Your task to perform on an android device: move a message to another label in the gmail app Image 0: 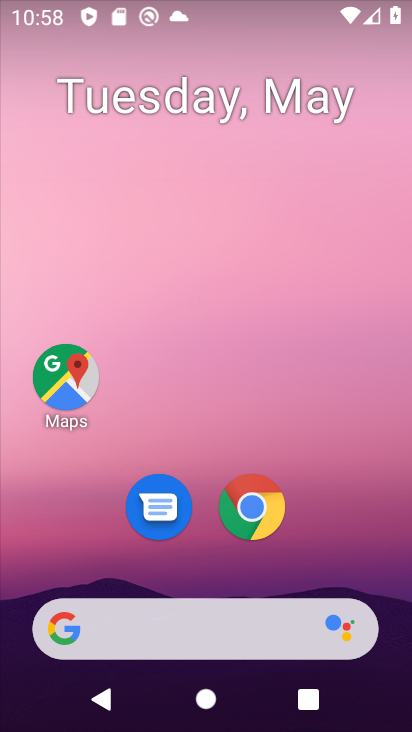
Step 0: drag from (273, 701) to (201, 79)
Your task to perform on an android device: move a message to another label in the gmail app Image 1: 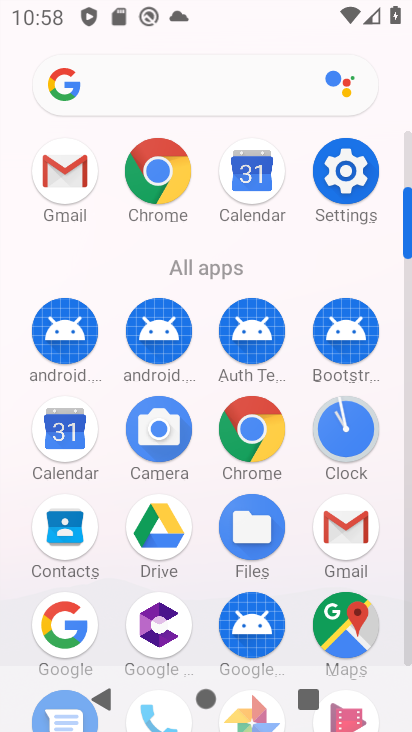
Step 1: click (333, 527)
Your task to perform on an android device: move a message to another label in the gmail app Image 2: 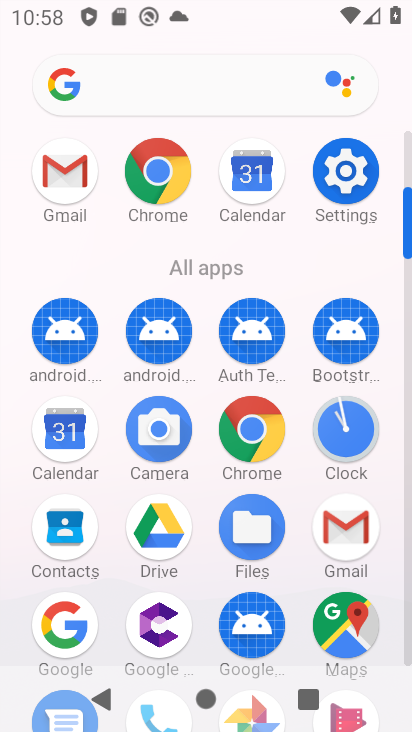
Step 2: click (342, 532)
Your task to perform on an android device: move a message to another label in the gmail app Image 3: 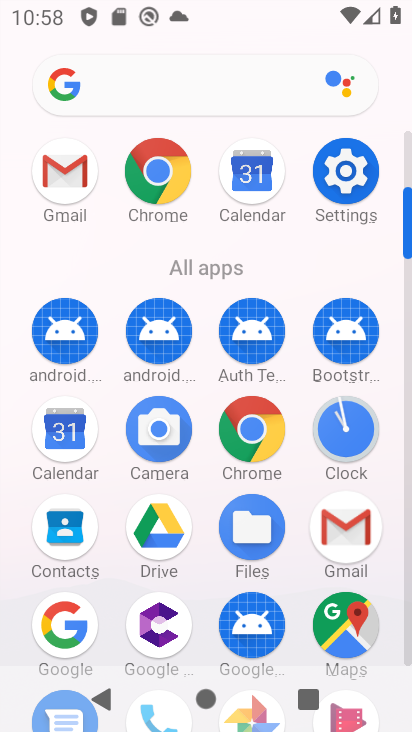
Step 3: click (342, 532)
Your task to perform on an android device: move a message to another label in the gmail app Image 4: 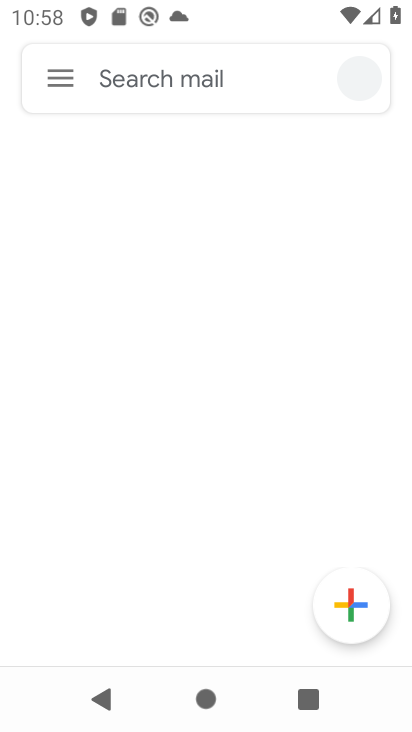
Step 4: click (350, 537)
Your task to perform on an android device: move a message to another label in the gmail app Image 5: 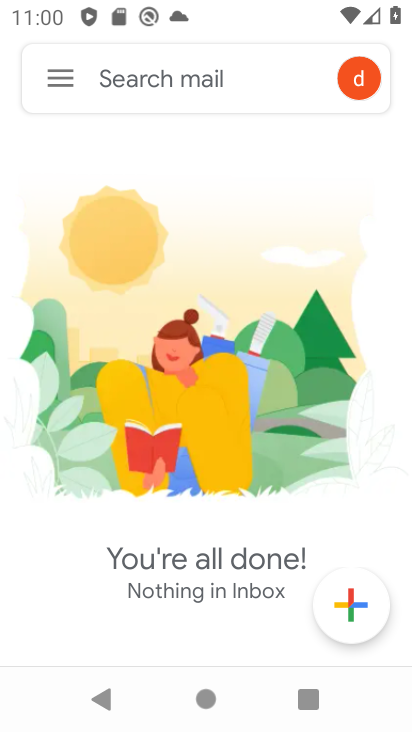
Step 5: press back button
Your task to perform on an android device: move a message to another label in the gmail app Image 6: 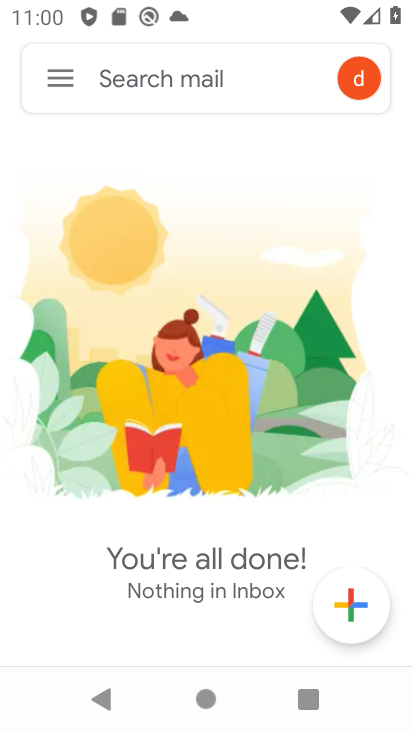
Step 6: press back button
Your task to perform on an android device: move a message to another label in the gmail app Image 7: 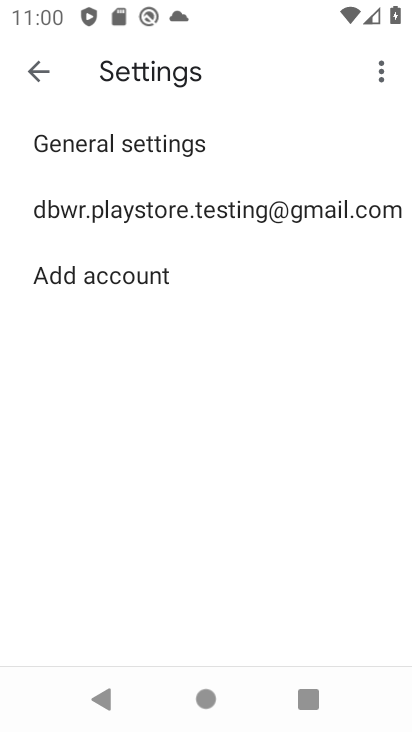
Step 7: press back button
Your task to perform on an android device: move a message to another label in the gmail app Image 8: 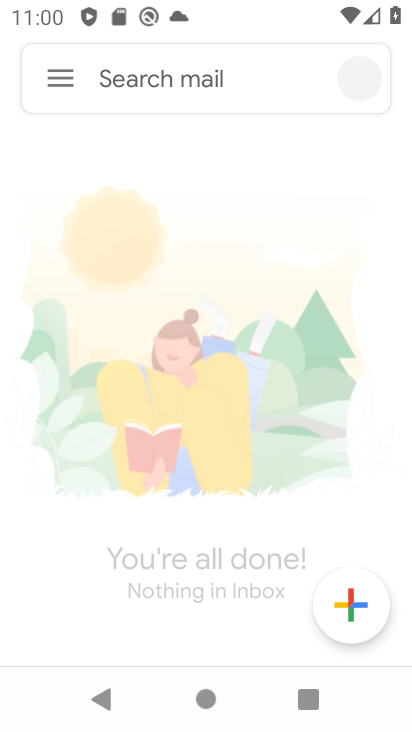
Step 8: press back button
Your task to perform on an android device: move a message to another label in the gmail app Image 9: 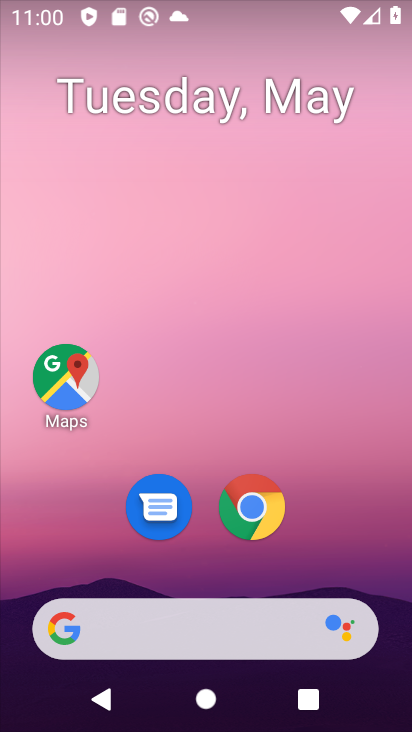
Step 9: drag from (253, 685) to (130, 84)
Your task to perform on an android device: move a message to another label in the gmail app Image 10: 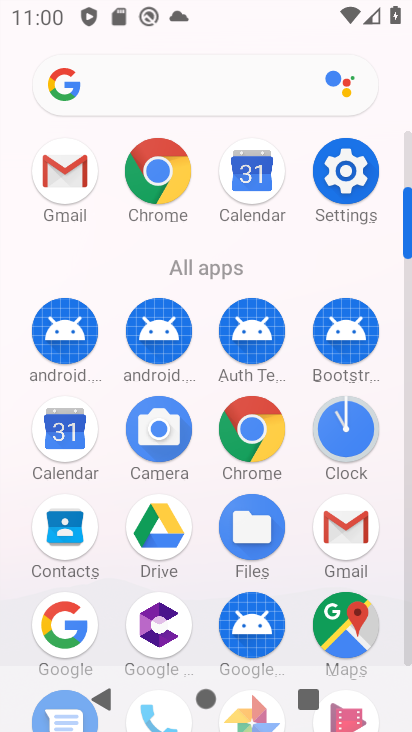
Step 10: click (343, 522)
Your task to perform on an android device: move a message to another label in the gmail app Image 11: 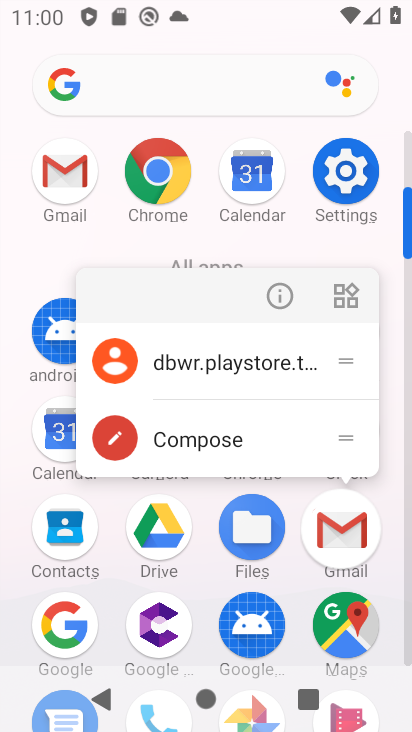
Step 11: click (338, 528)
Your task to perform on an android device: move a message to another label in the gmail app Image 12: 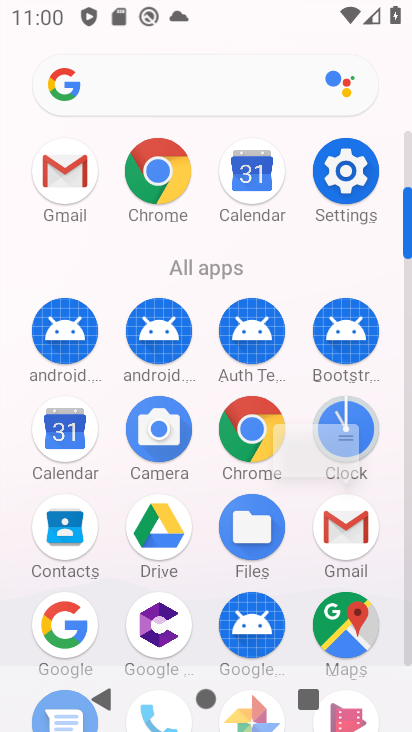
Step 12: drag from (341, 528) to (362, 567)
Your task to perform on an android device: move a message to another label in the gmail app Image 13: 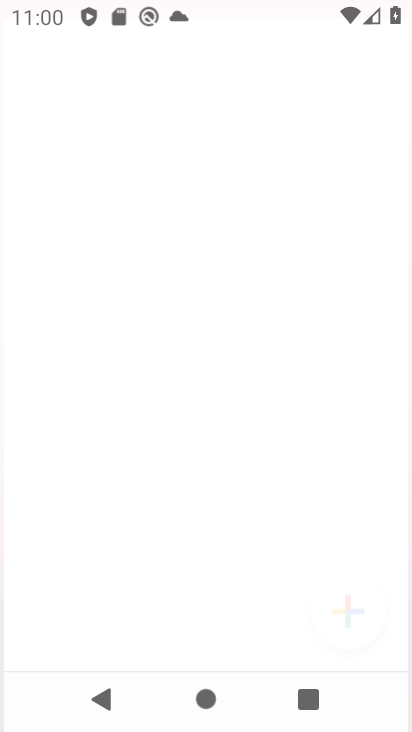
Step 13: click (345, 538)
Your task to perform on an android device: move a message to another label in the gmail app Image 14: 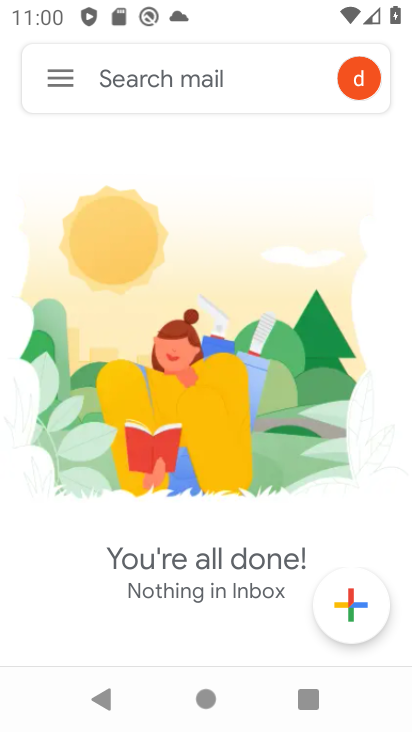
Step 14: click (60, 75)
Your task to perform on an android device: move a message to another label in the gmail app Image 15: 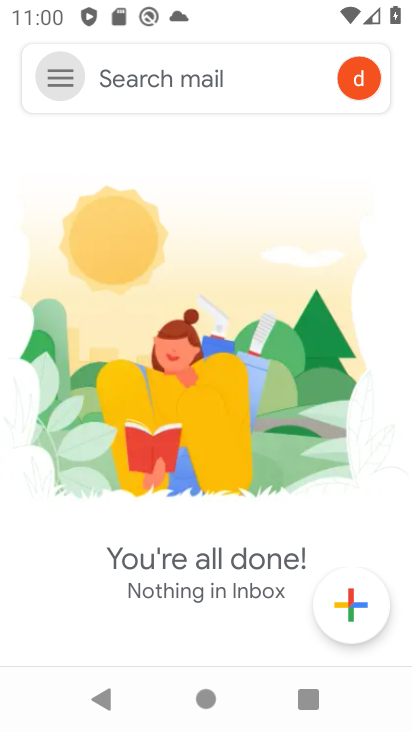
Step 15: click (60, 75)
Your task to perform on an android device: move a message to another label in the gmail app Image 16: 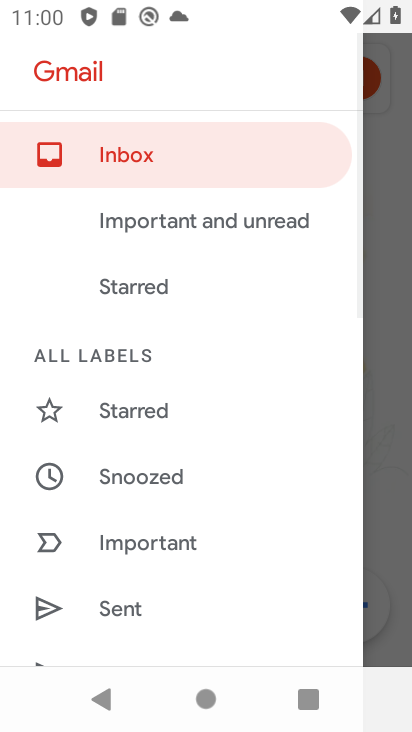
Step 16: drag from (144, 562) to (140, 72)
Your task to perform on an android device: move a message to another label in the gmail app Image 17: 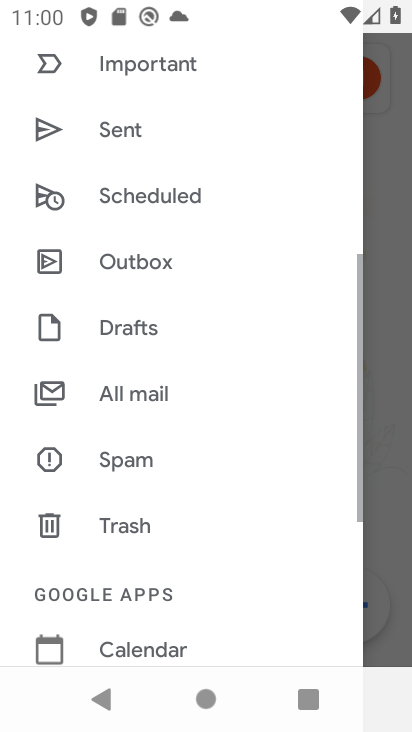
Step 17: drag from (217, 424) to (234, 85)
Your task to perform on an android device: move a message to another label in the gmail app Image 18: 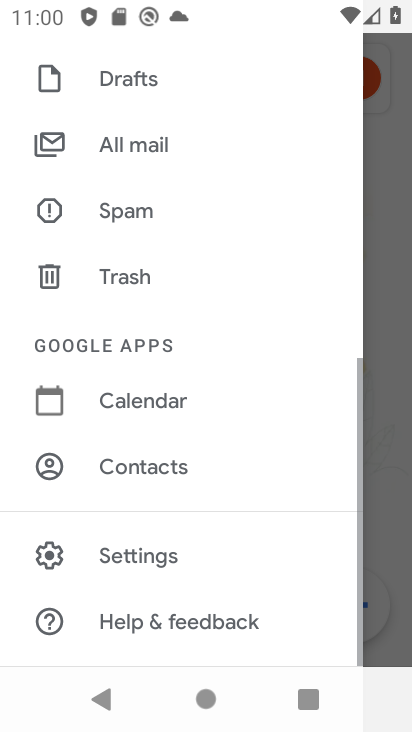
Step 18: click (131, 145)
Your task to perform on an android device: move a message to another label in the gmail app Image 19: 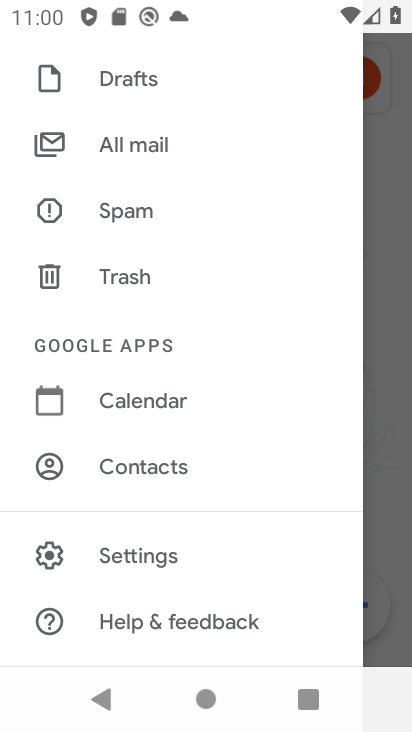
Step 19: click (131, 147)
Your task to perform on an android device: move a message to another label in the gmail app Image 20: 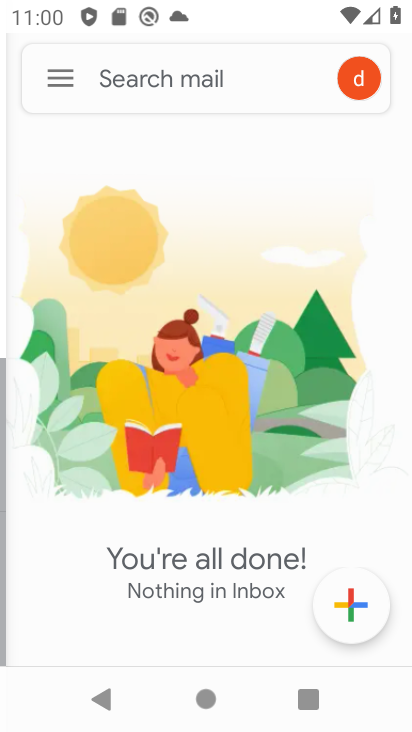
Step 20: click (131, 150)
Your task to perform on an android device: move a message to another label in the gmail app Image 21: 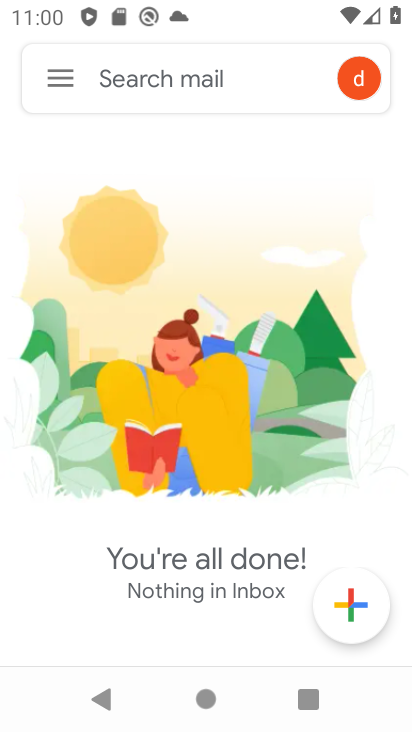
Step 21: click (127, 150)
Your task to perform on an android device: move a message to another label in the gmail app Image 22: 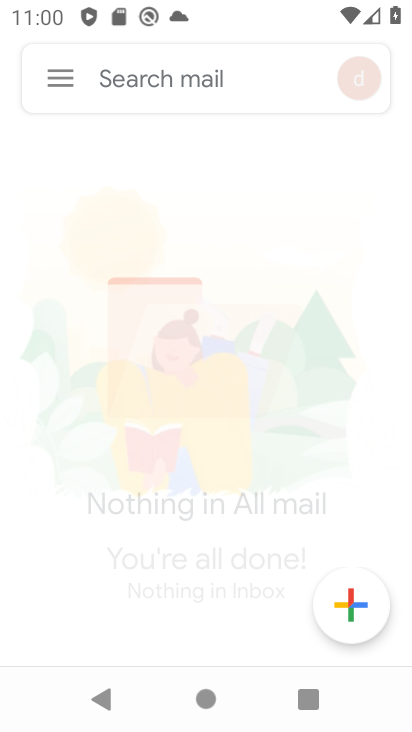
Step 22: click (124, 149)
Your task to perform on an android device: move a message to another label in the gmail app Image 23: 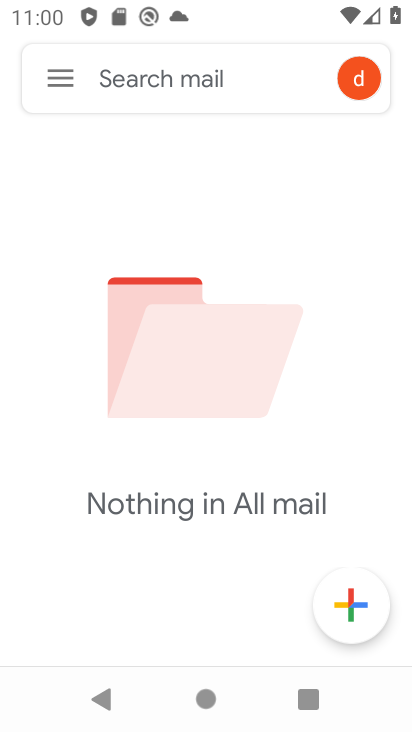
Step 23: task complete